Your task to perform on an android device: open app "Upside-Cash back on gas & food" (install if not already installed) Image 0: 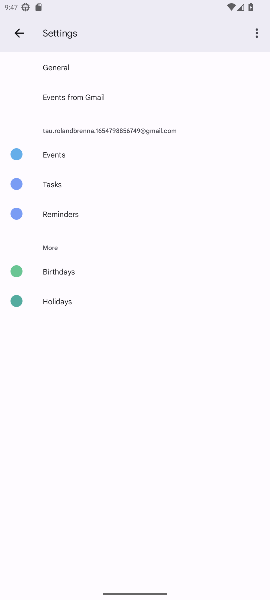
Step 0: press home button
Your task to perform on an android device: open app "Upside-Cash back on gas & food" (install if not already installed) Image 1: 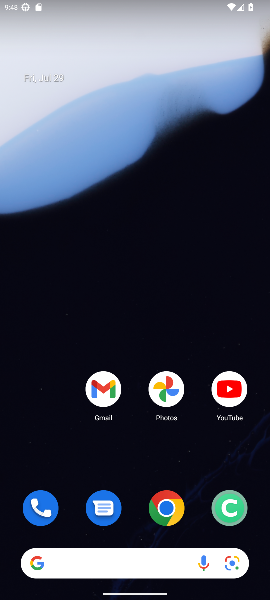
Step 1: drag from (149, 573) to (179, 157)
Your task to perform on an android device: open app "Upside-Cash back on gas & food" (install if not already installed) Image 2: 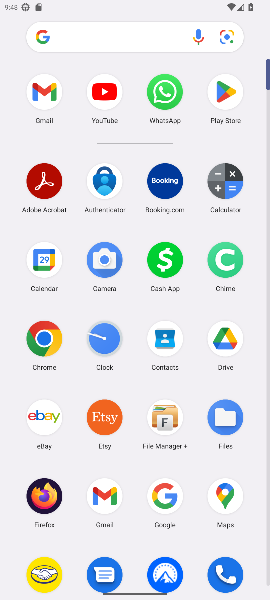
Step 2: click (213, 84)
Your task to perform on an android device: open app "Upside-Cash back on gas & food" (install if not already installed) Image 3: 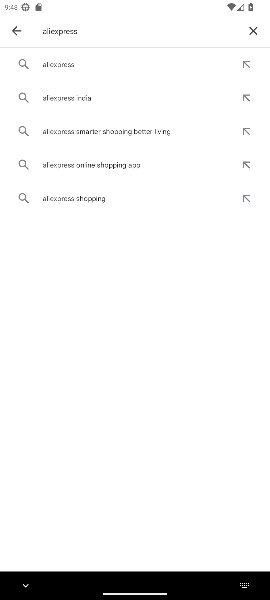
Step 3: click (256, 30)
Your task to perform on an android device: open app "Upside-Cash back on gas & food" (install if not already installed) Image 4: 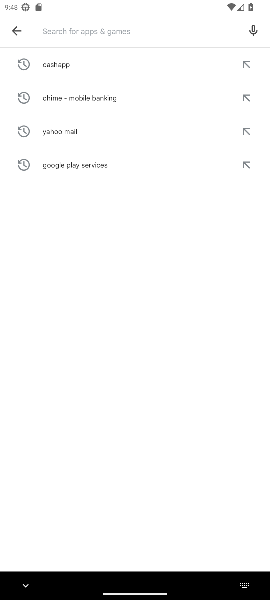
Step 4: type "upside-cash back on gas & food"
Your task to perform on an android device: open app "Upside-Cash back on gas & food" (install if not already installed) Image 5: 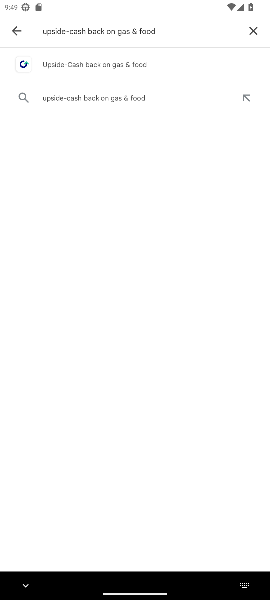
Step 5: click (71, 70)
Your task to perform on an android device: open app "Upside-Cash back on gas & food" (install if not already installed) Image 6: 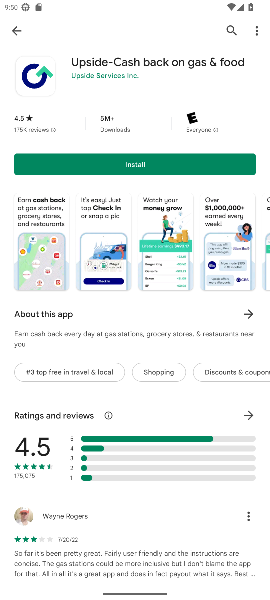
Step 6: click (170, 150)
Your task to perform on an android device: open app "Upside-Cash back on gas & food" (install if not already installed) Image 7: 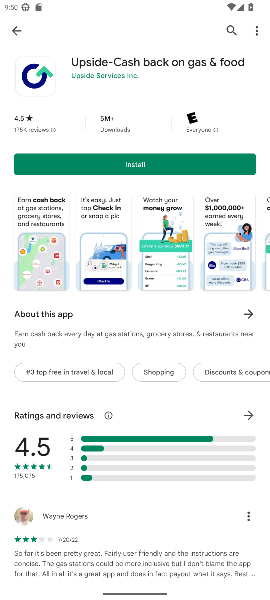
Step 7: click (167, 163)
Your task to perform on an android device: open app "Upside-Cash back on gas & food" (install if not already installed) Image 8: 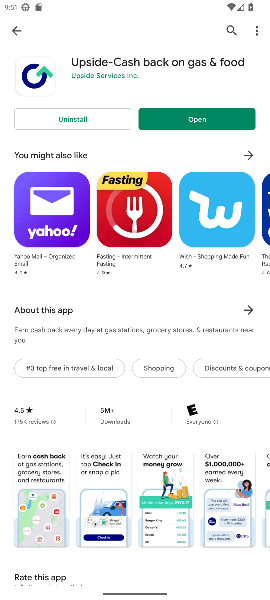
Step 8: click (218, 117)
Your task to perform on an android device: open app "Upside-Cash back on gas & food" (install if not already installed) Image 9: 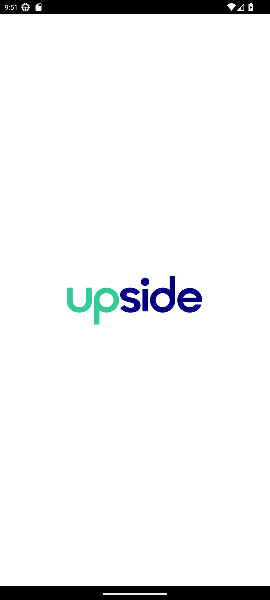
Step 9: task complete